Your task to perform on an android device: Search for hotels in Seattle Image 0: 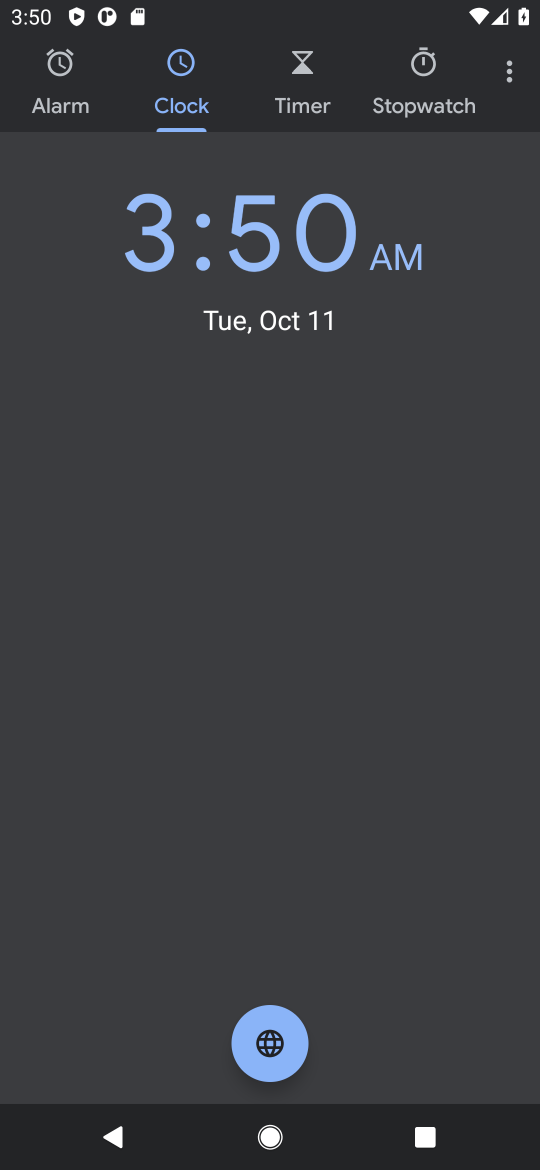
Step 0: press home button
Your task to perform on an android device: Search for hotels in Seattle Image 1: 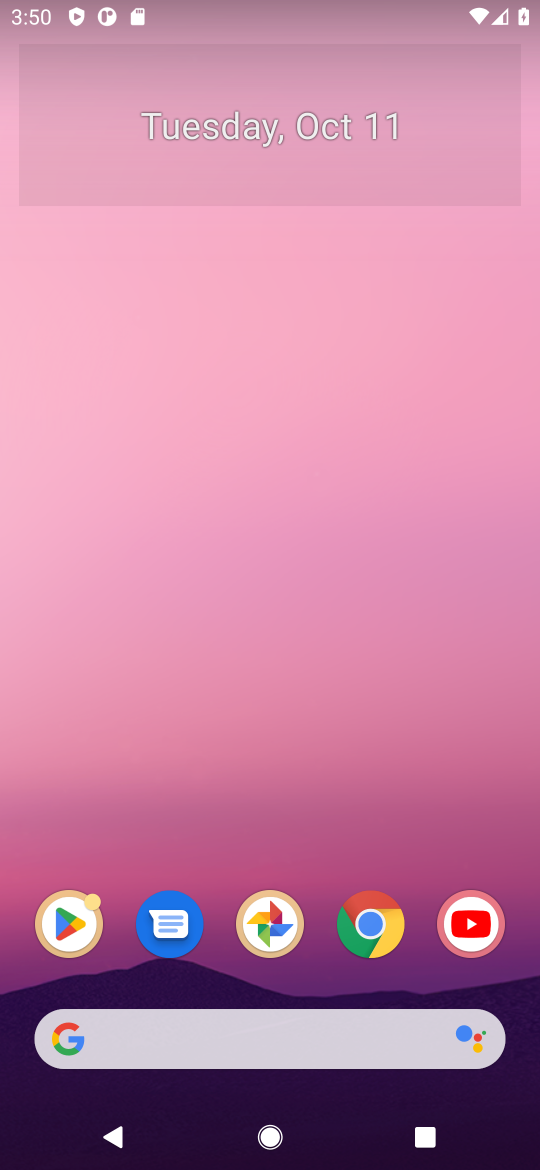
Step 1: drag from (314, 980) to (325, 219)
Your task to perform on an android device: Search for hotels in Seattle Image 2: 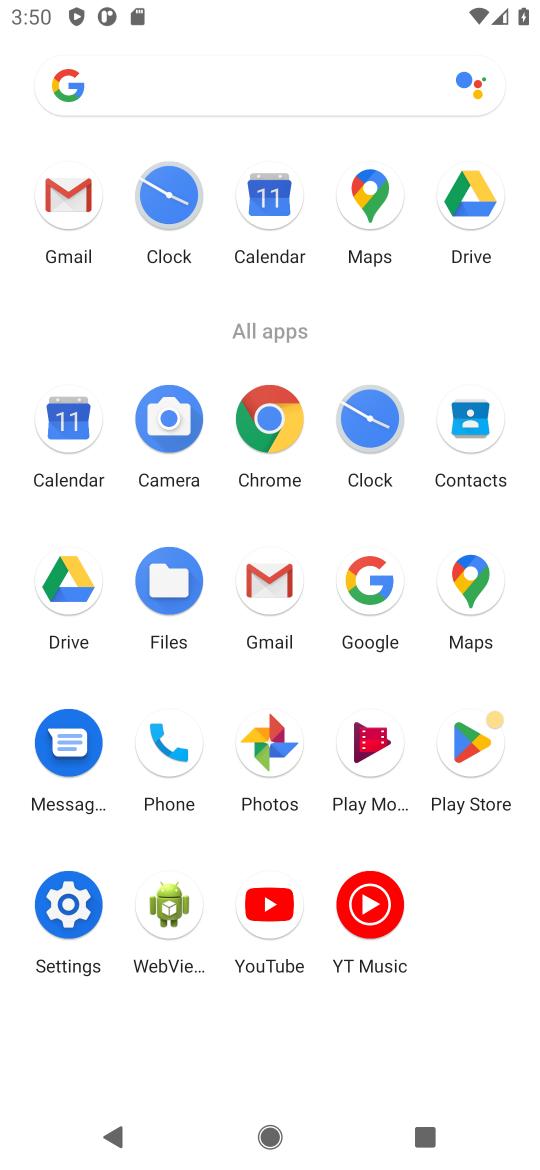
Step 2: click (262, 436)
Your task to perform on an android device: Search for hotels in Seattle Image 3: 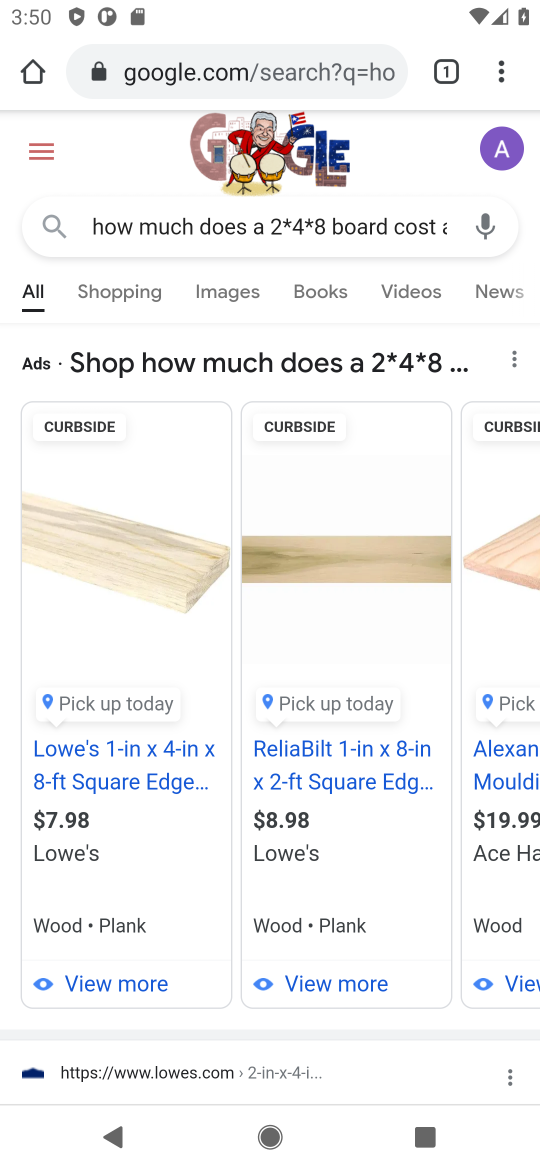
Step 3: click (291, 52)
Your task to perform on an android device: Search for hotels in Seattle Image 4: 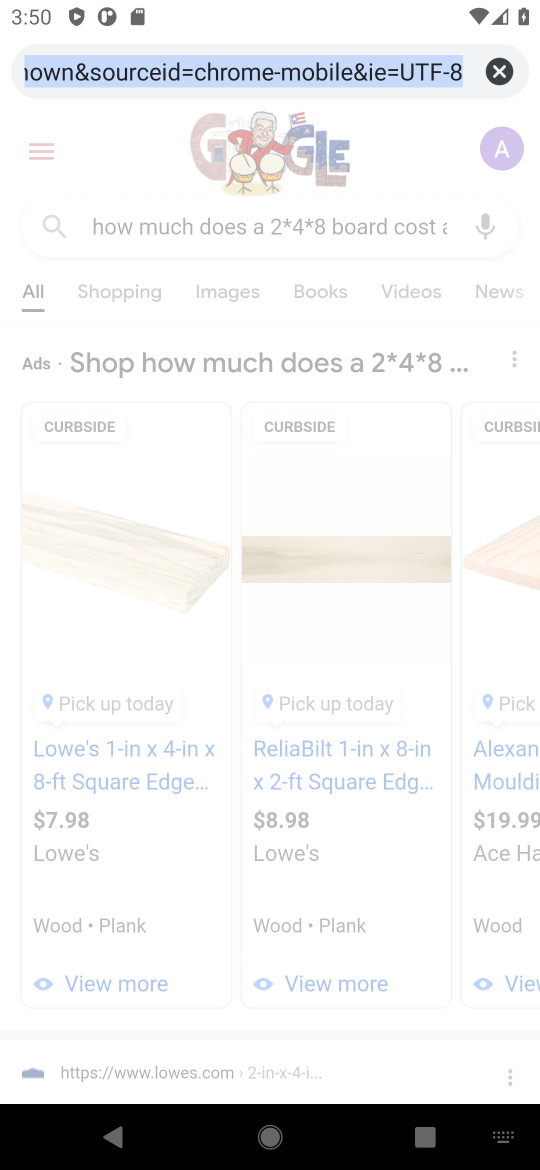
Step 4: type "hotels in Seattle"
Your task to perform on an android device: Search for hotels in Seattle Image 5: 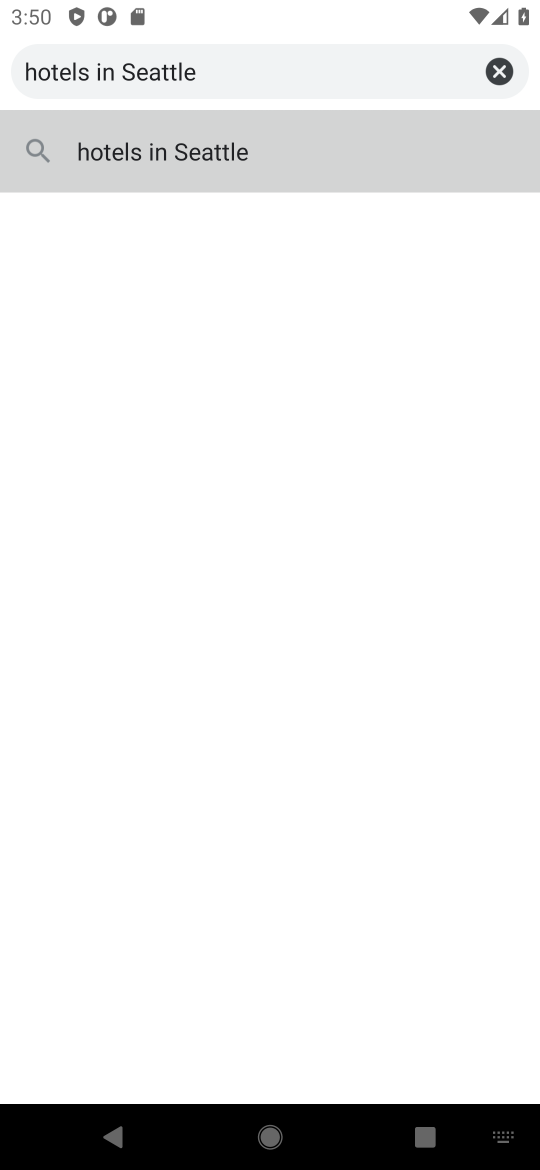
Step 5: press enter
Your task to perform on an android device: Search for hotels in Seattle Image 6: 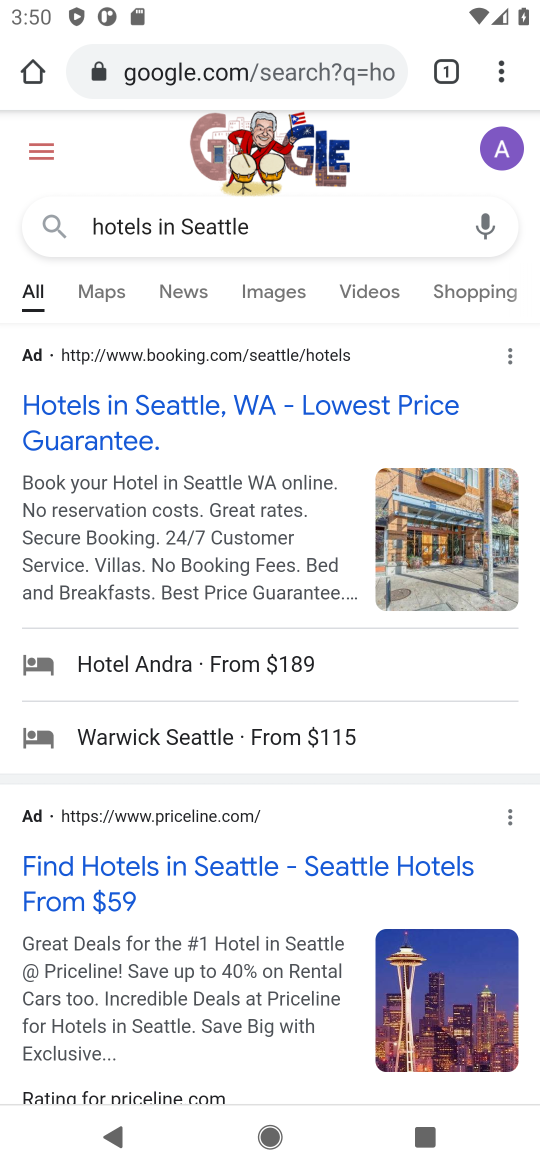
Step 6: task complete